Your task to perform on an android device: open app "Speedtest by Ookla" (install if not already installed) and go to login screen Image 0: 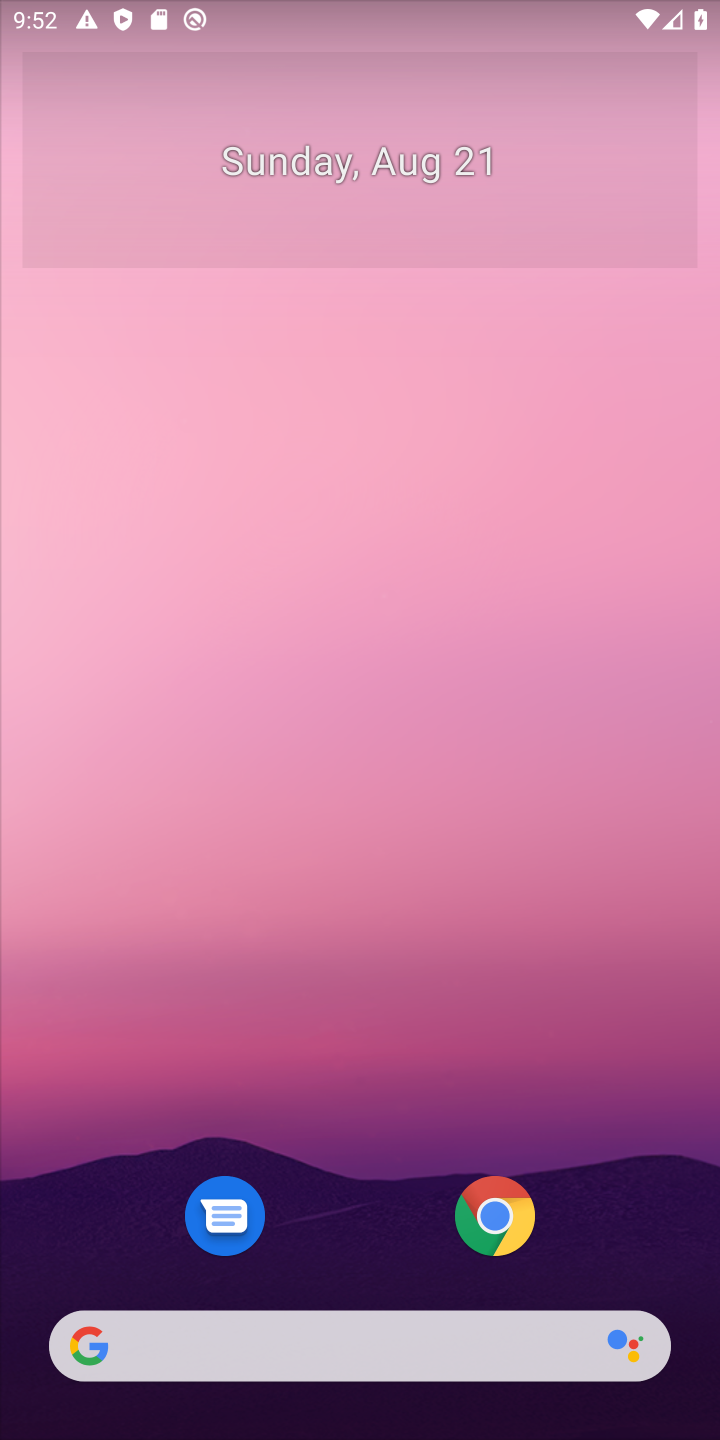
Step 0: drag from (394, 710) to (462, 0)
Your task to perform on an android device: open app "Speedtest by Ookla" (install if not already installed) and go to login screen Image 1: 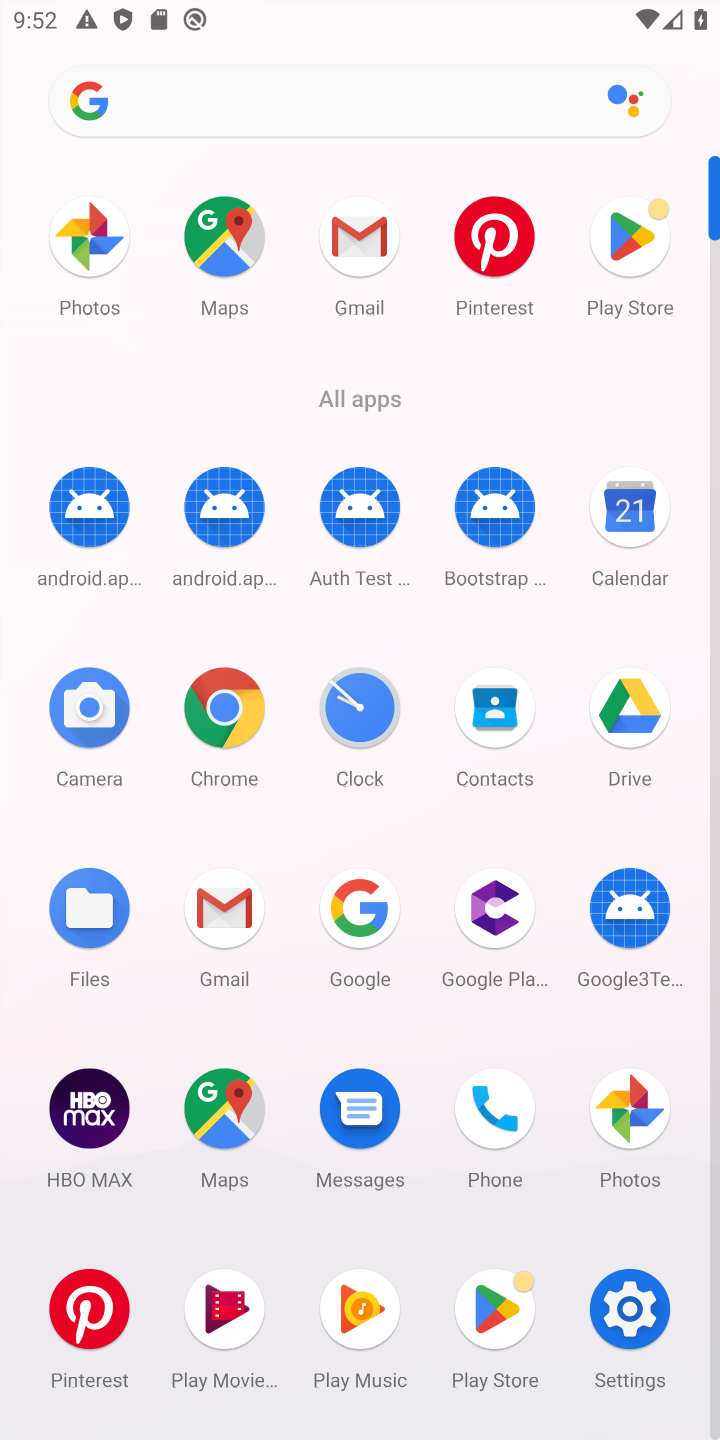
Step 1: click (647, 253)
Your task to perform on an android device: open app "Speedtest by Ookla" (install if not already installed) and go to login screen Image 2: 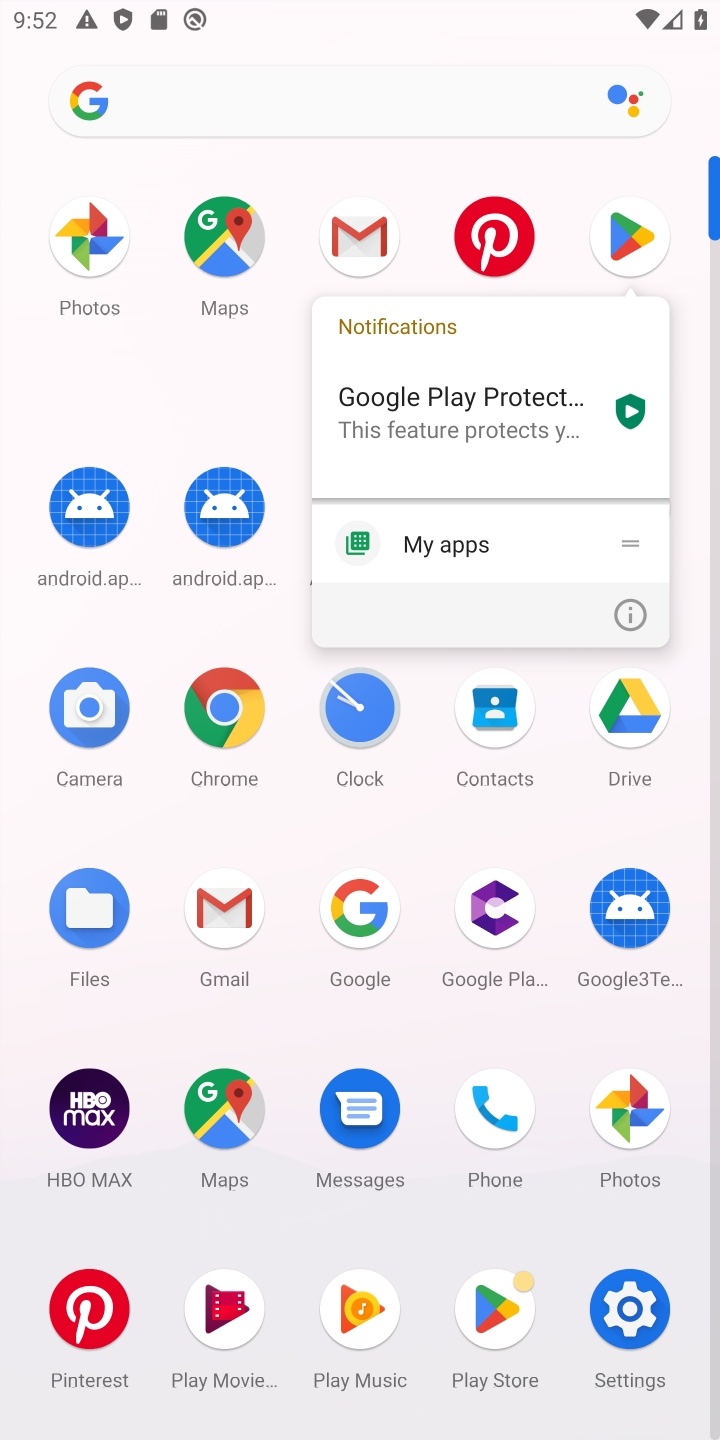
Step 2: click (644, 253)
Your task to perform on an android device: open app "Speedtest by Ookla" (install if not already installed) and go to login screen Image 3: 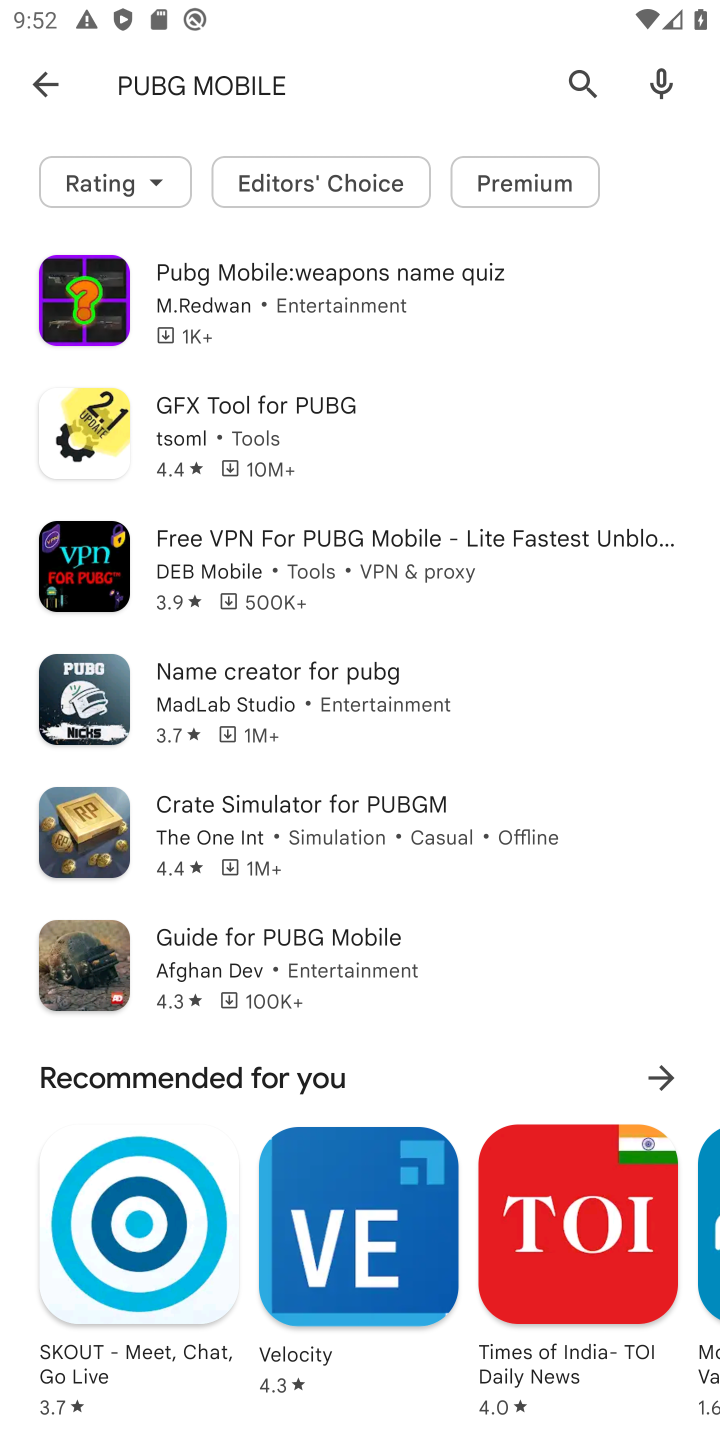
Step 3: press back button
Your task to perform on an android device: open app "Speedtest by Ookla" (install if not already installed) and go to login screen Image 4: 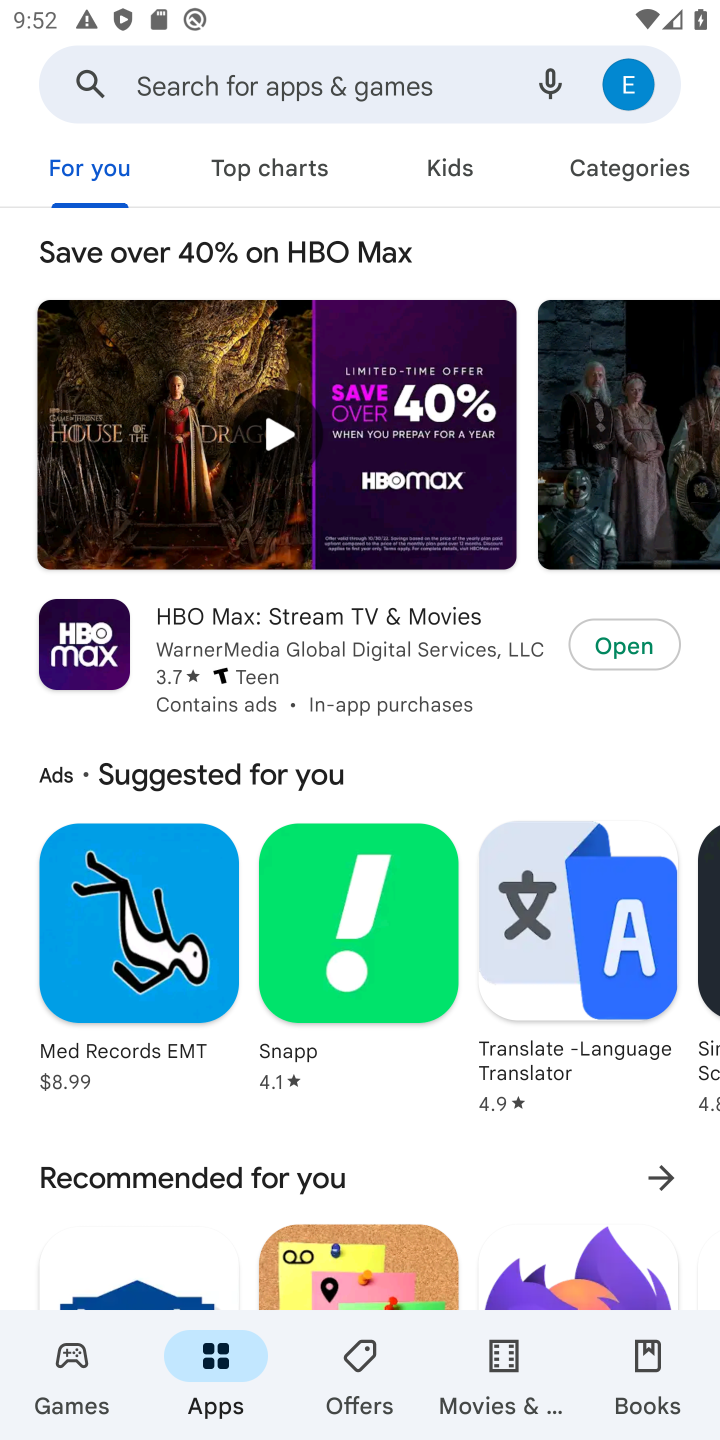
Step 4: click (305, 103)
Your task to perform on an android device: open app "Speedtest by Ookla" (install if not already installed) and go to login screen Image 5: 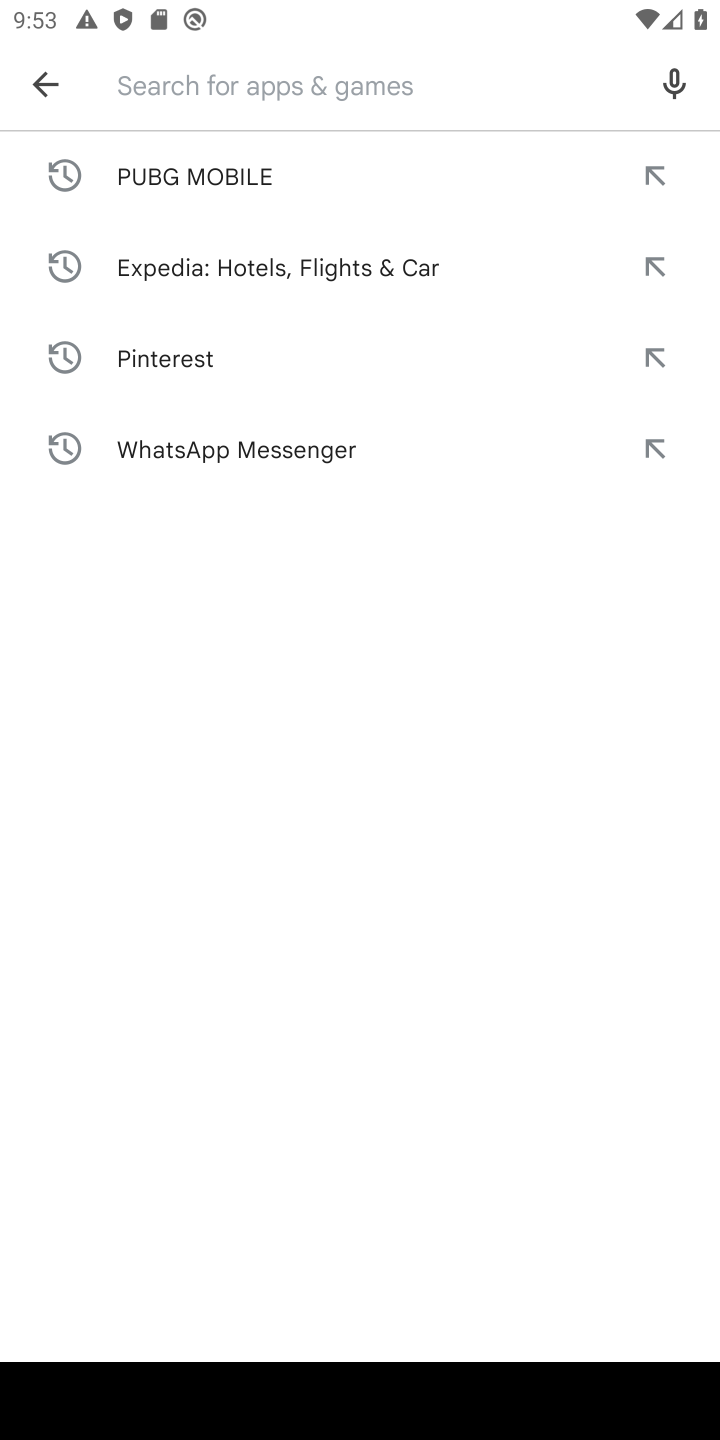
Step 5: type "Speedtest by Ookla"
Your task to perform on an android device: open app "Speedtest by Ookla" (install if not already installed) and go to login screen Image 6: 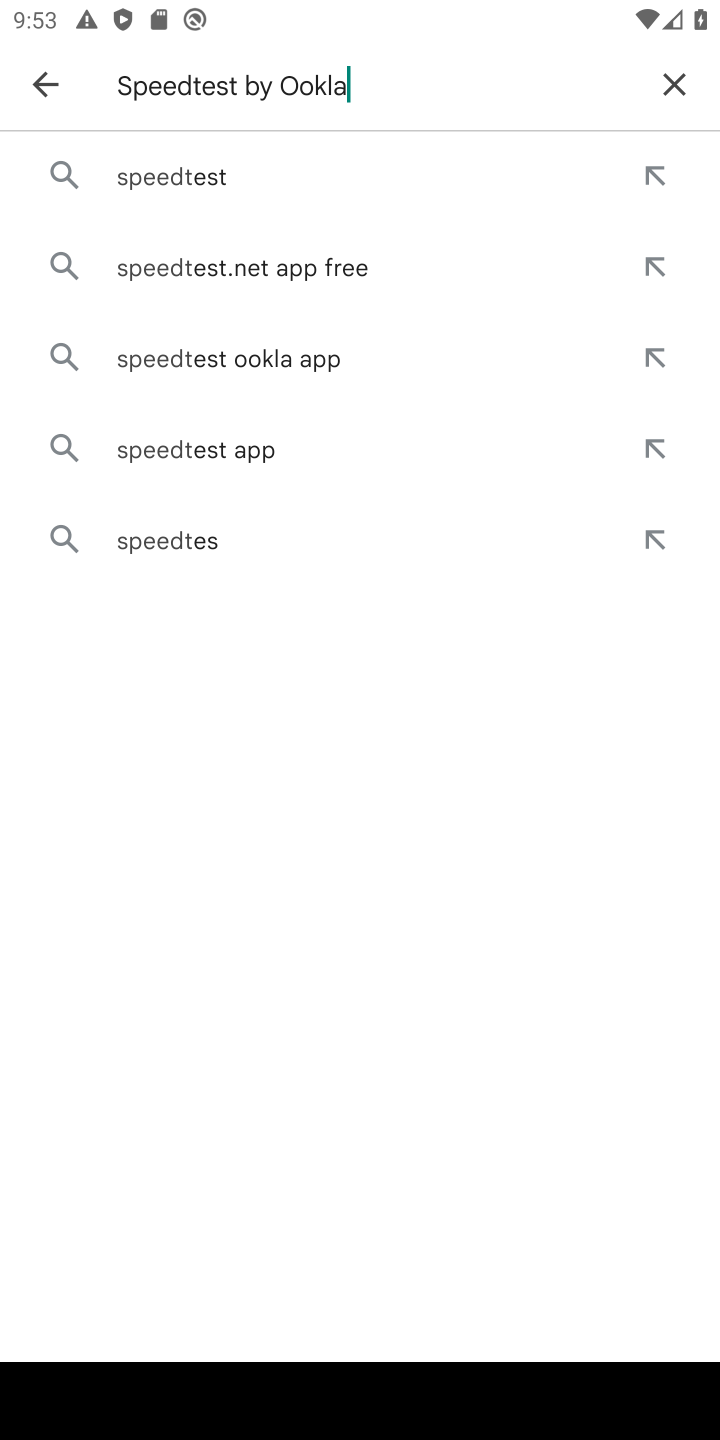
Step 6: press enter
Your task to perform on an android device: open app "Speedtest by Ookla" (install if not already installed) and go to login screen Image 7: 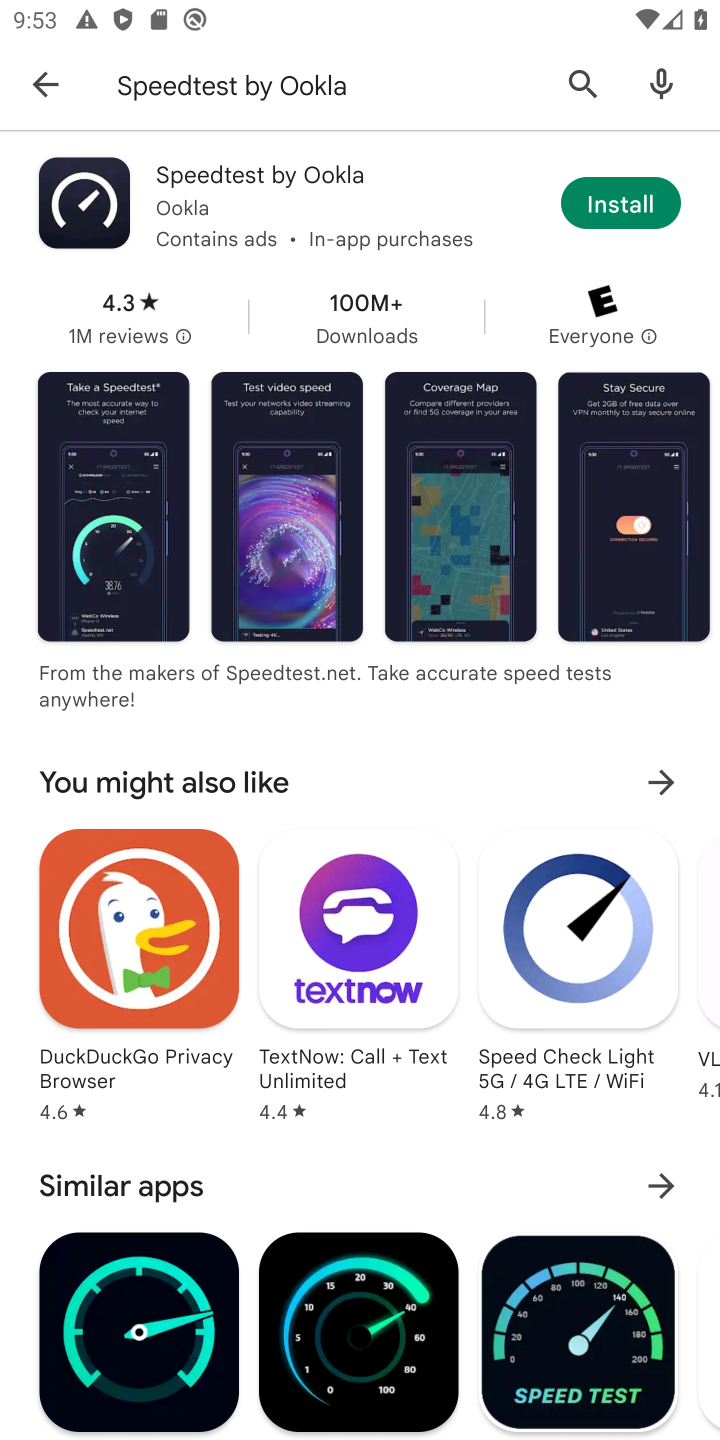
Step 7: click (594, 203)
Your task to perform on an android device: open app "Speedtest by Ookla" (install if not already installed) and go to login screen Image 8: 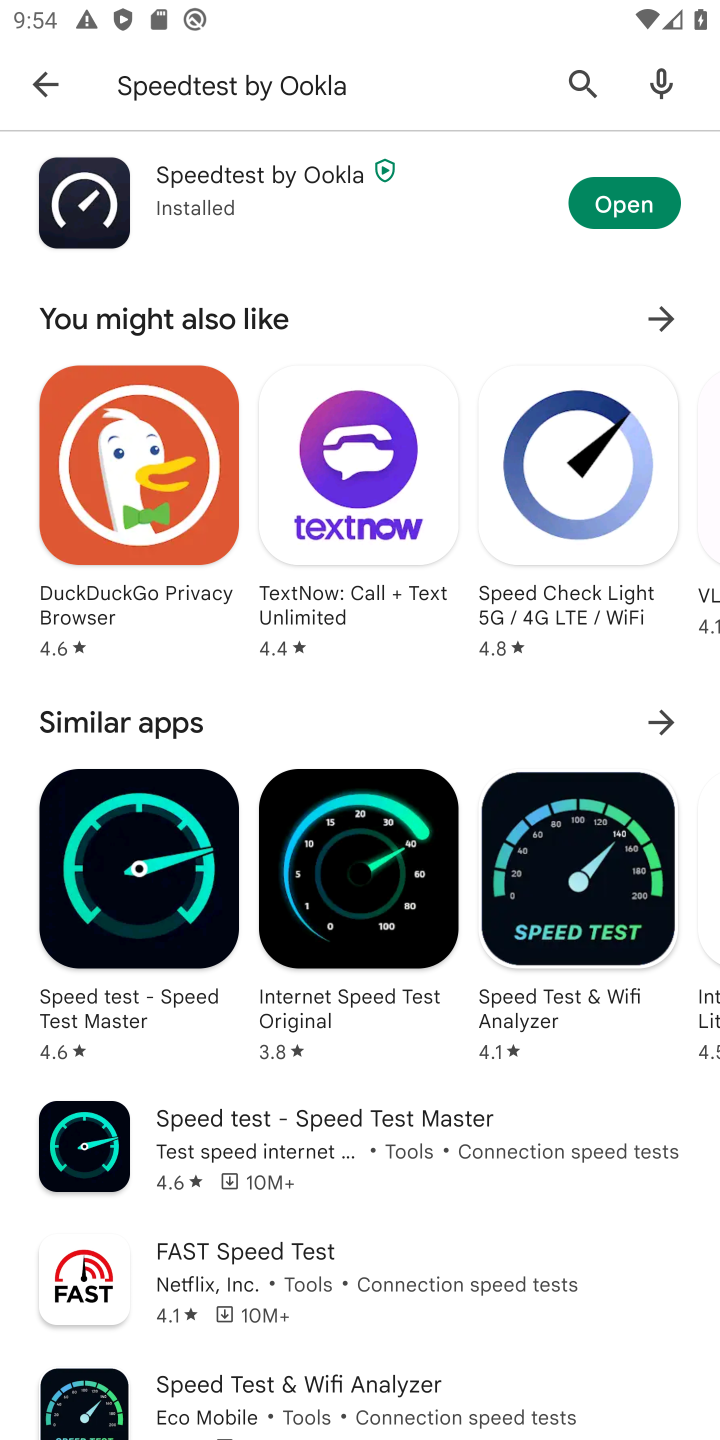
Step 8: click (617, 208)
Your task to perform on an android device: open app "Speedtest by Ookla" (install if not already installed) and go to login screen Image 9: 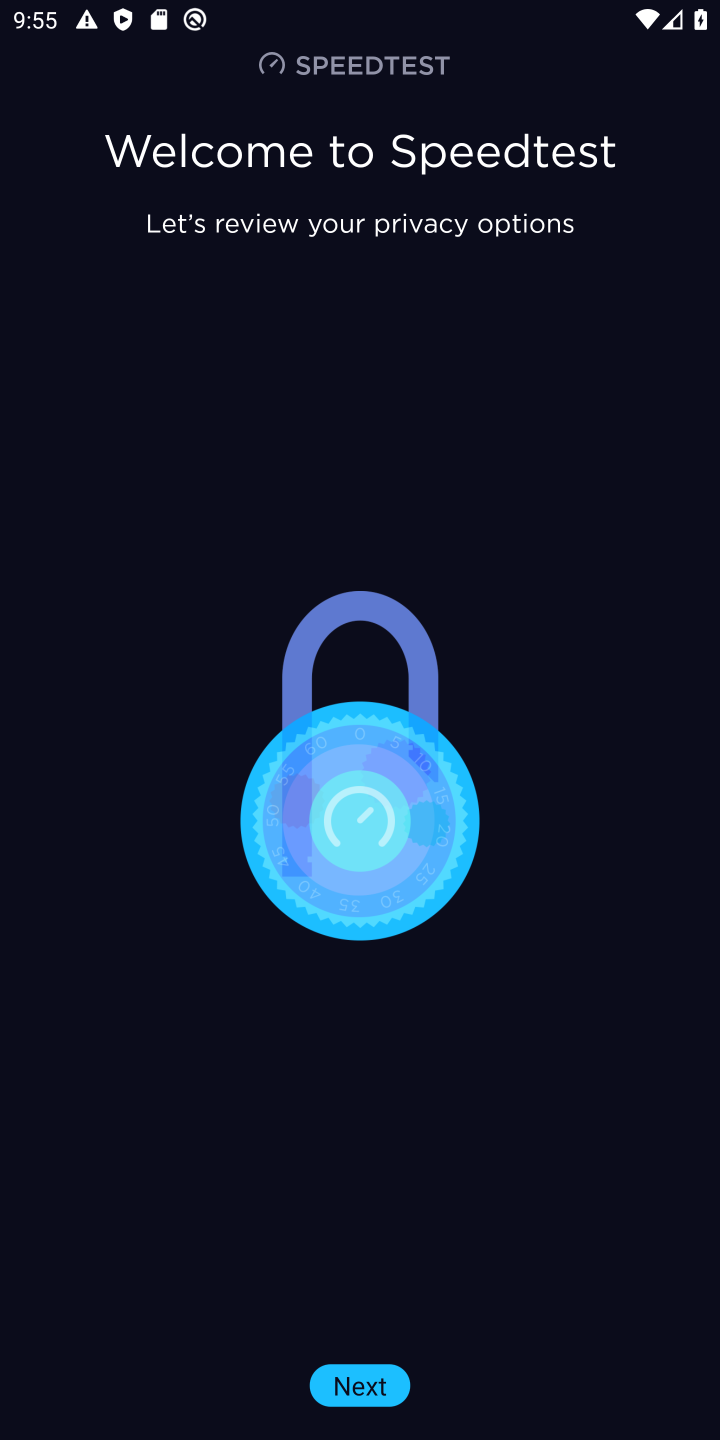
Step 9: click (327, 1377)
Your task to perform on an android device: open app "Speedtest by Ookla" (install if not already installed) and go to login screen Image 10: 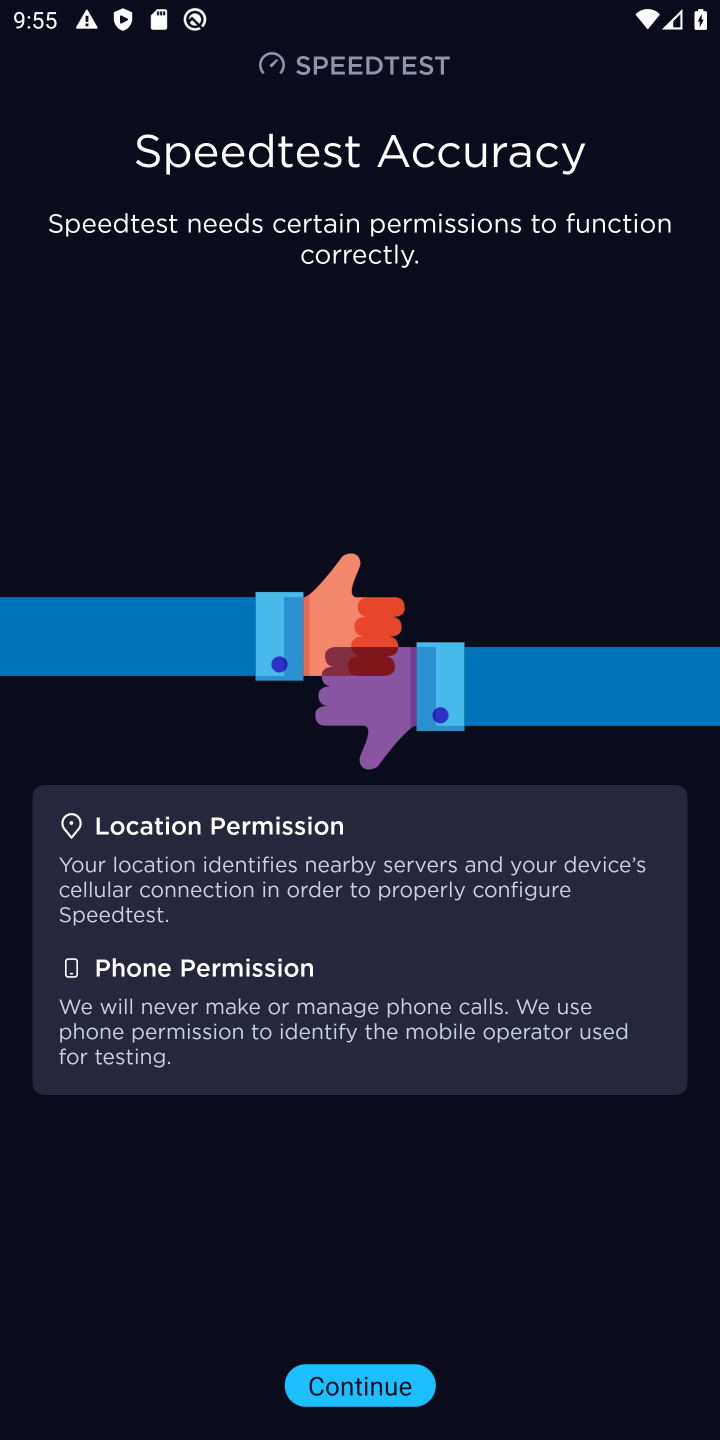
Step 10: click (372, 1381)
Your task to perform on an android device: open app "Speedtest by Ookla" (install if not already installed) and go to login screen Image 11: 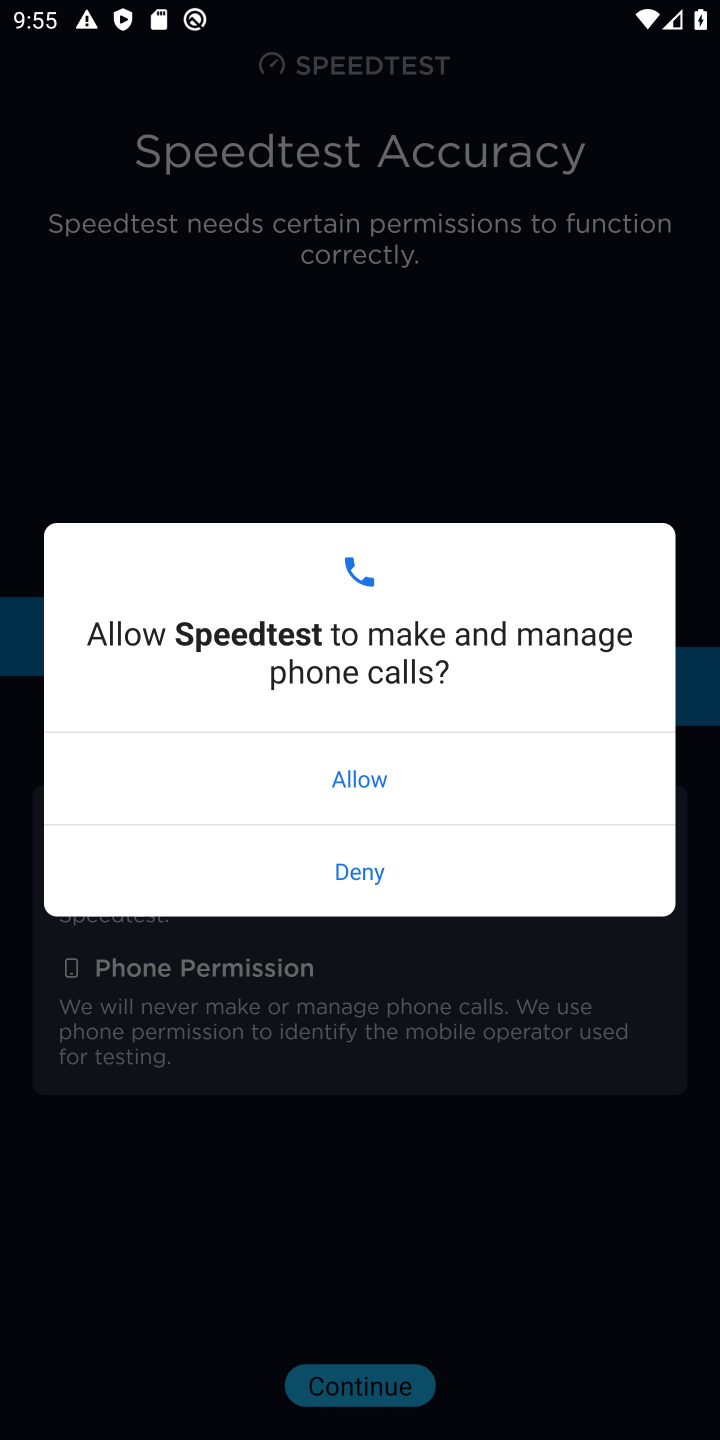
Step 11: click (419, 771)
Your task to perform on an android device: open app "Speedtest by Ookla" (install if not already installed) and go to login screen Image 12: 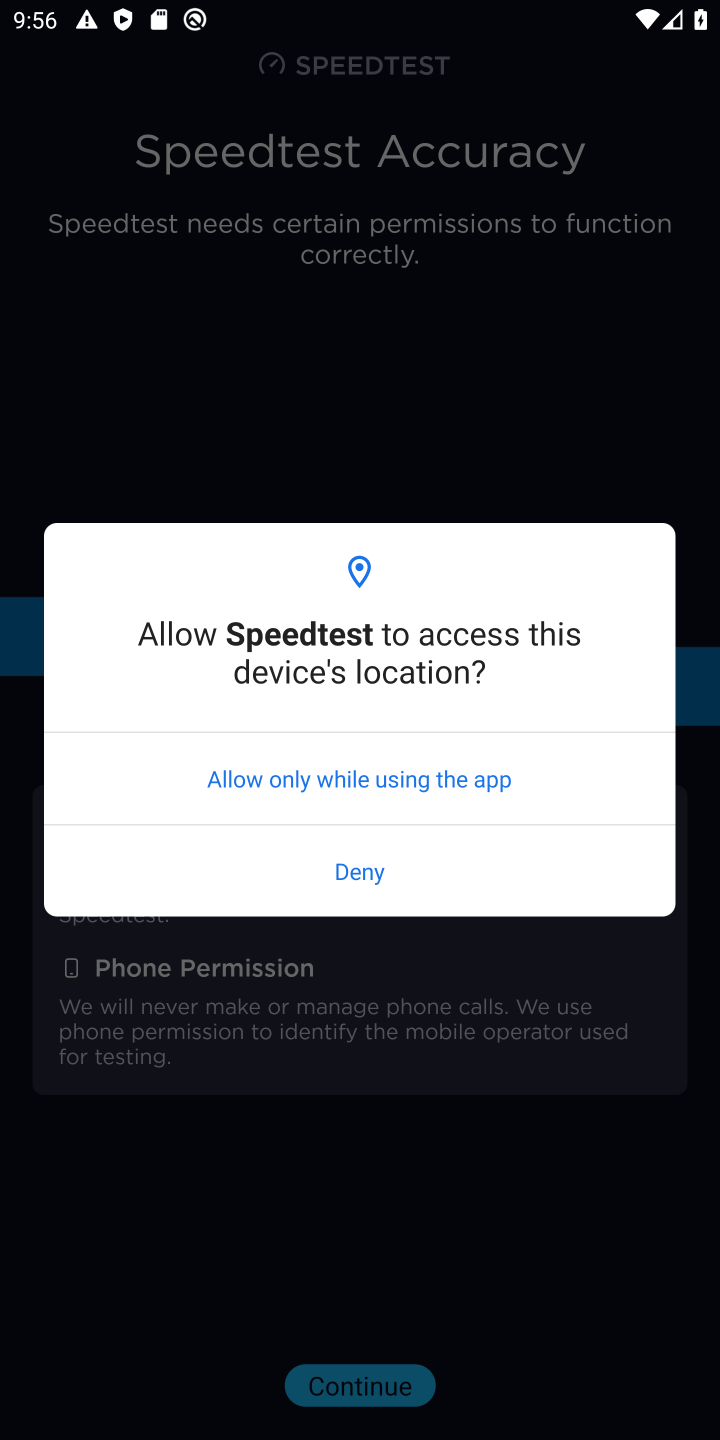
Step 12: click (395, 790)
Your task to perform on an android device: open app "Speedtest by Ookla" (install if not already installed) and go to login screen Image 13: 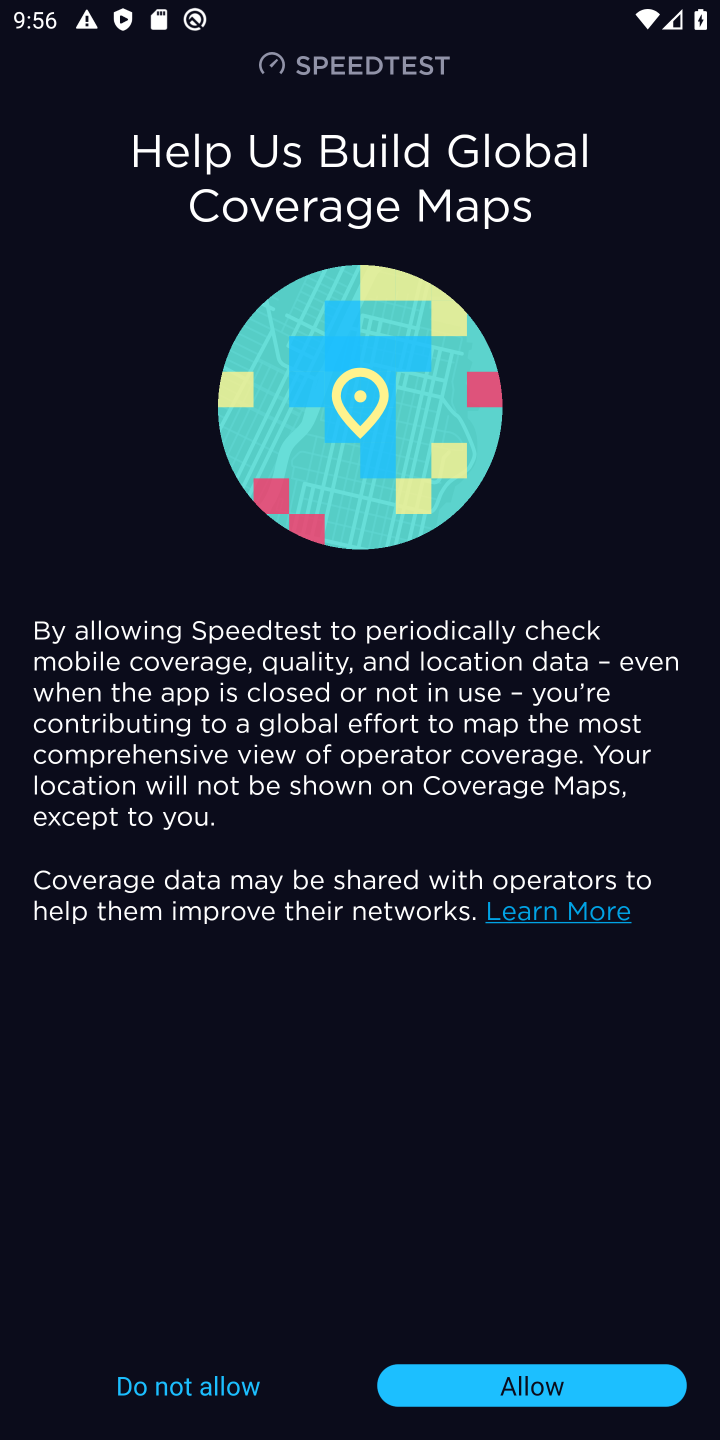
Step 13: click (545, 1377)
Your task to perform on an android device: open app "Speedtest by Ookla" (install if not already installed) and go to login screen Image 14: 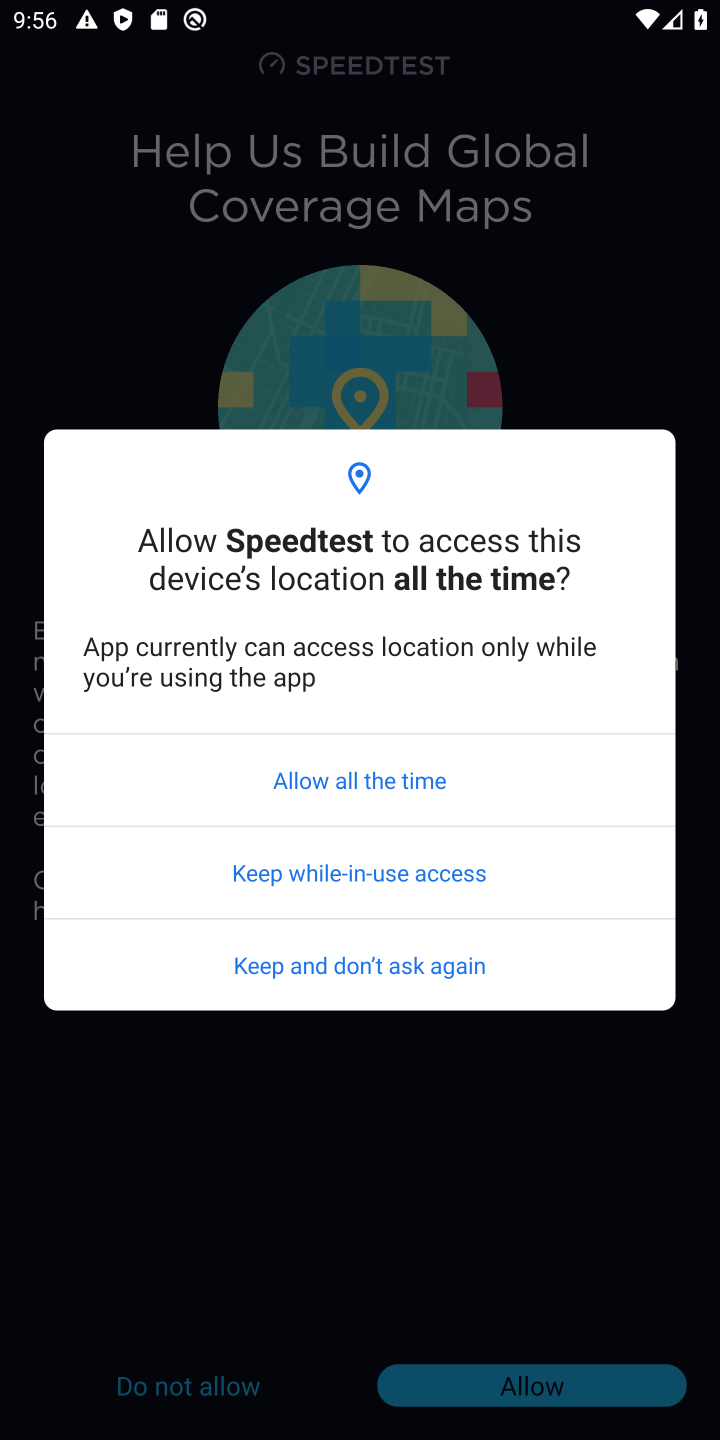
Step 14: click (357, 770)
Your task to perform on an android device: open app "Speedtest by Ookla" (install if not already installed) and go to login screen Image 15: 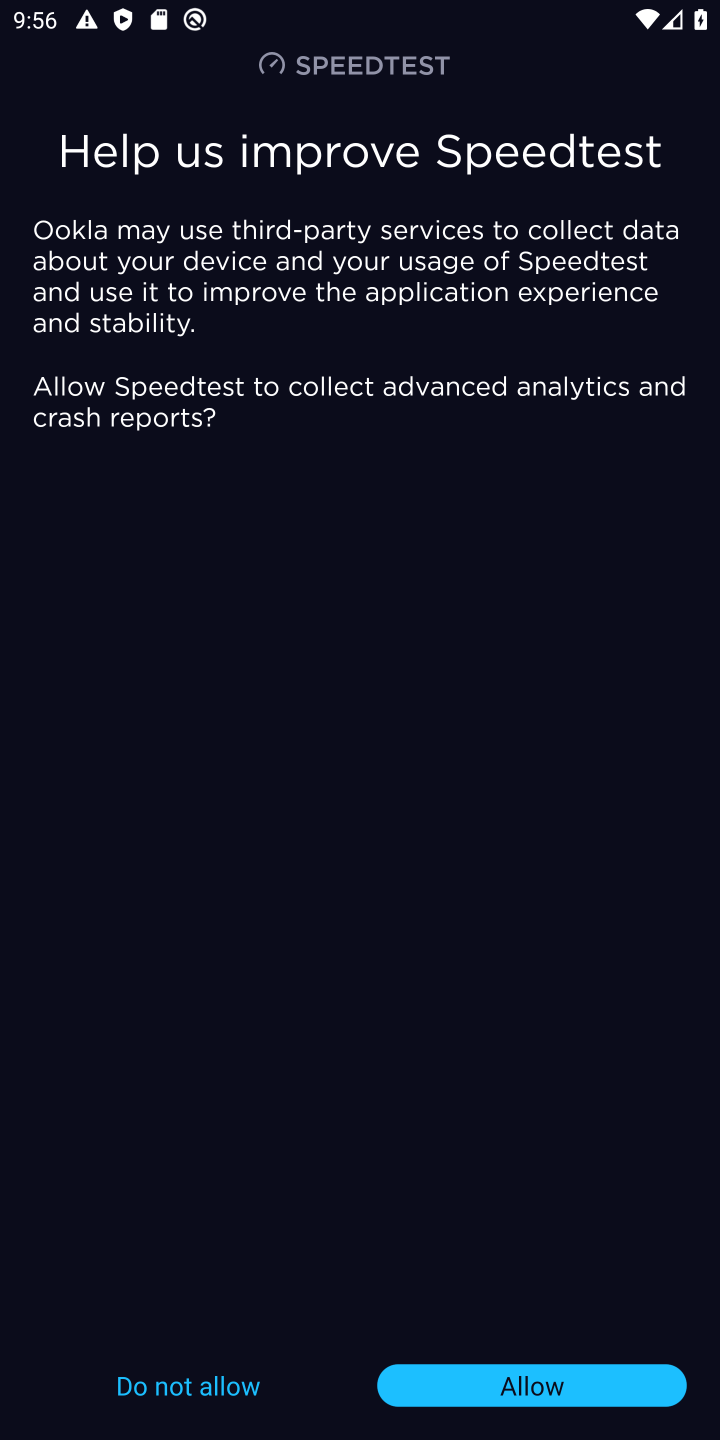
Step 15: click (559, 1398)
Your task to perform on an android device: open app "Speedtest by Ookla" (install if not already installed) and go to login screen Image 16: 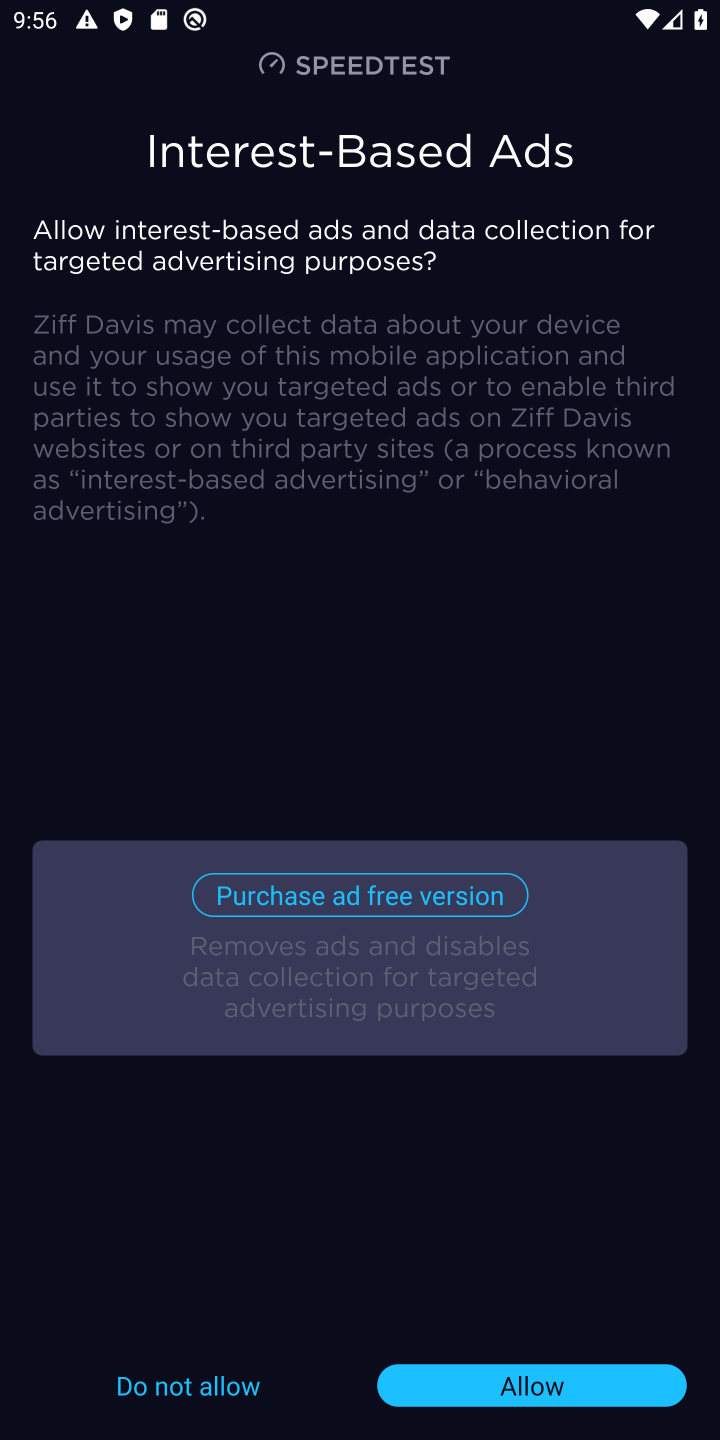
Step 16: task complete